Your task to perform on an android device: Is it going to rain this weekend? Image 0: 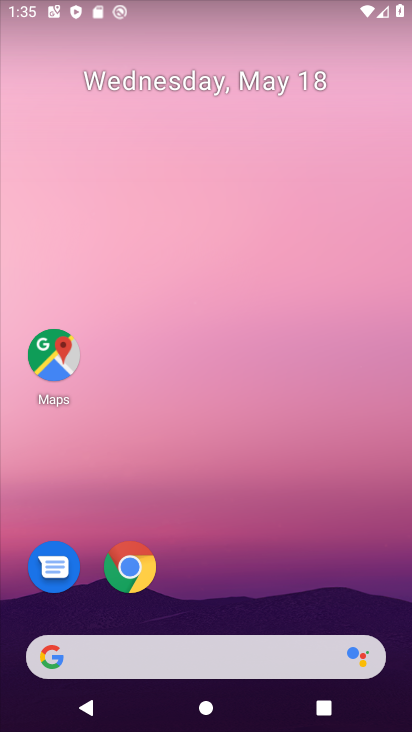
Step 0: click (126, 568)
Your task to perform on an android device: Is it going to rain this weekend? Image 1: 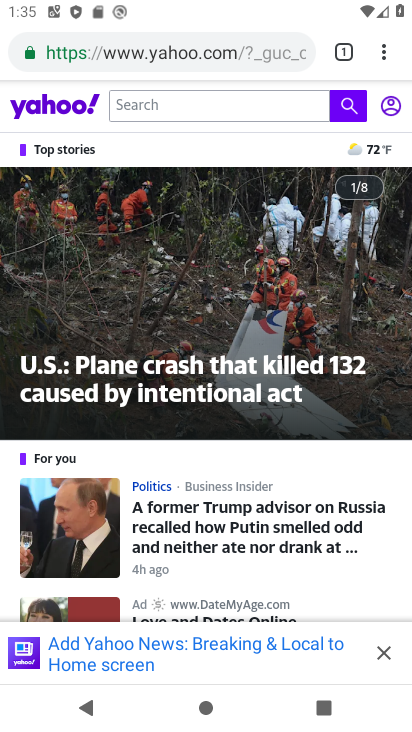
Step 1: click (175, 46)
Your task to perform on an android device: Is it going to rain this weekend? Image 2: 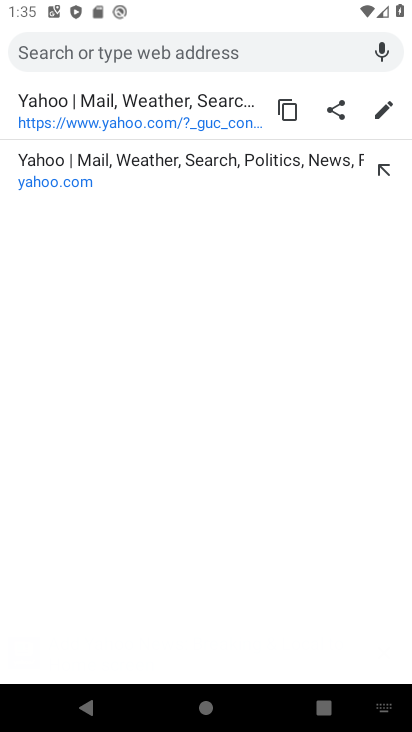
Step 2: type "weather"
Your task to perform on an android device: Is it going to rain this weekend? Image 3: 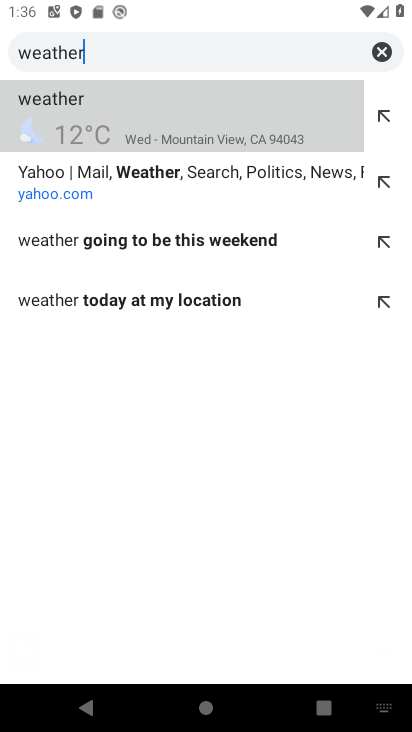
Step 3: click (36, 106)
Your task to perform on an android device: Is it going to rain this weekend? Image 4: 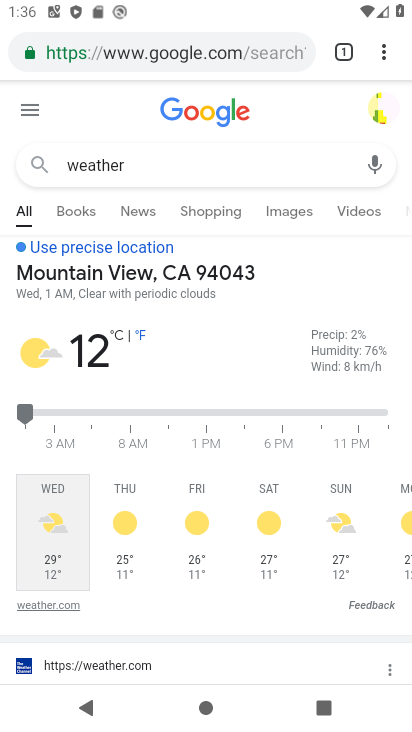
Step 4: drag from (253, 600) to (265, 343)
Your task to perform on an android device: Is it going to rain this weekend? Image 5: 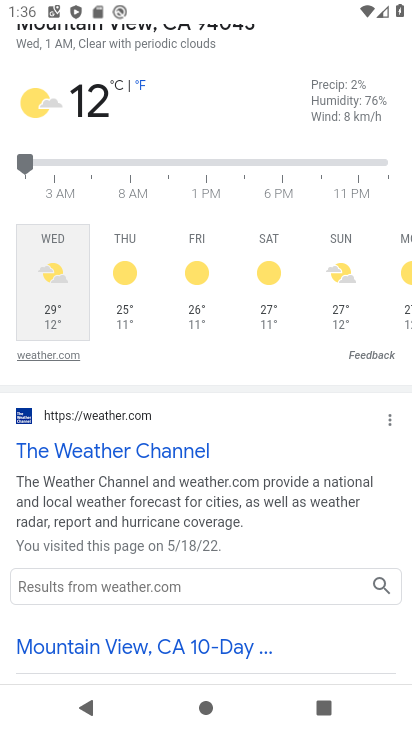
Step 5: drag from (267, 275) to (94, 280)
Your task to perform on an android device: Is it going to rain this weekend? Image 6: 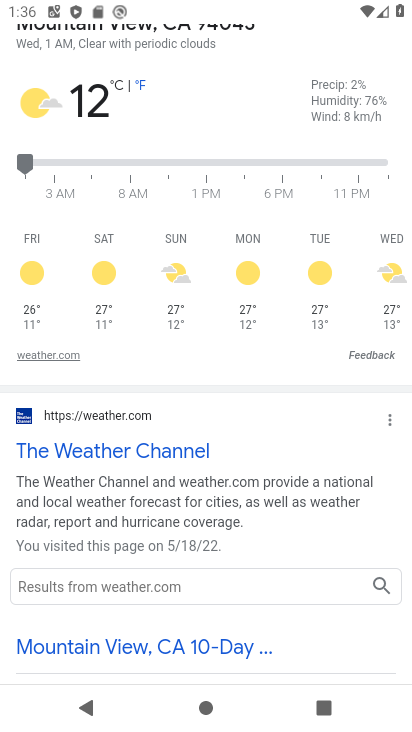
Step 6: drag from (256, 361) to (248, 469)
Your task to perform on an android device: Is it going to rain this weekend? Image 7: 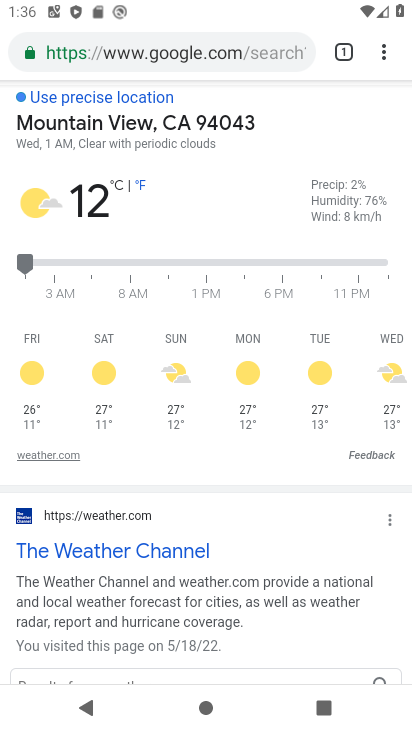
Step 7: drag from (145, 428) to (231, 434)
Your task to perform on an android device: Is it going to rain this weekend? Image 8: 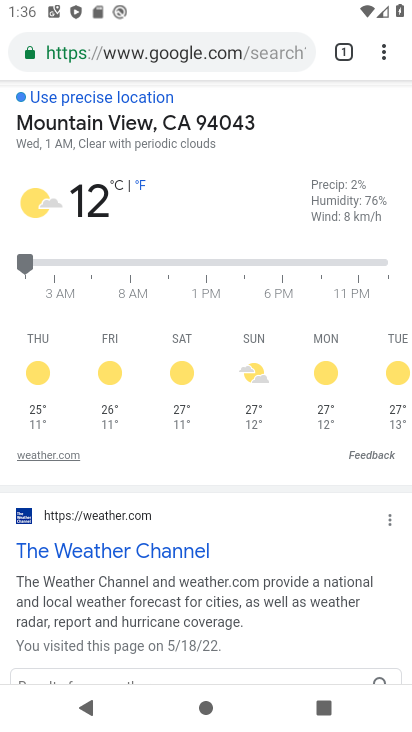
Step 8: click (260, 360)
Your task to perform on an android device: Is it going to rain this weekend? Image 9: 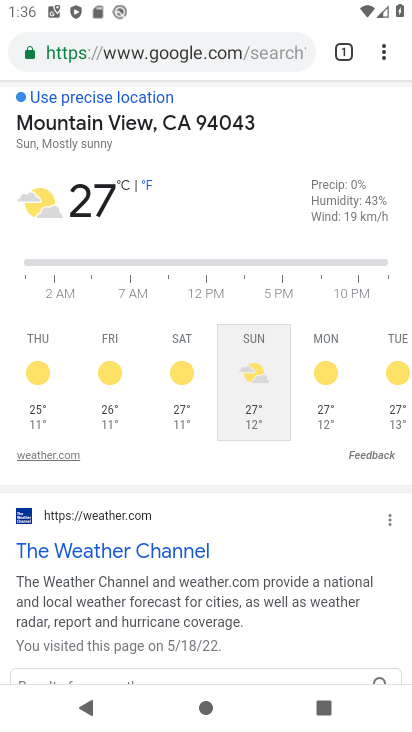
Step 9: task complete